Your task to perform on an android device: turn off data saver in the chrome app Image 0: 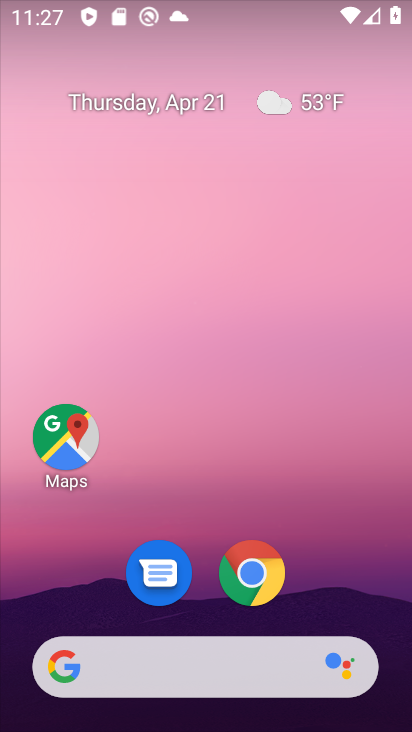
Step 0: drag from (156, 650) to (282, 147)
Your task to perform on an android device: turn off data saver in the chrome app Image 1: 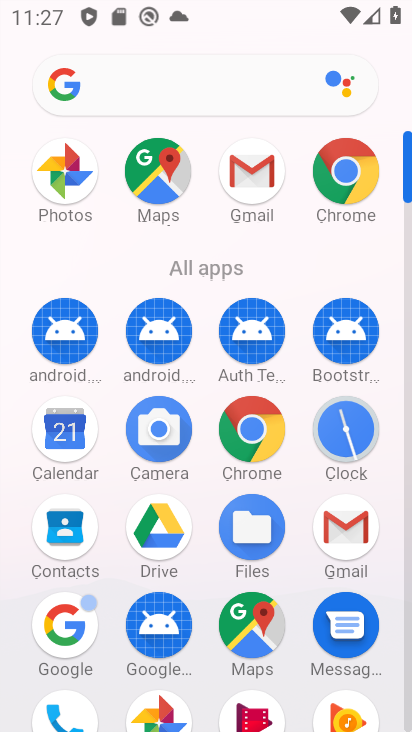
Step 1: click (353, 177)
Your task to perform on an android device: turn off data saver in the chrome app Image 2: 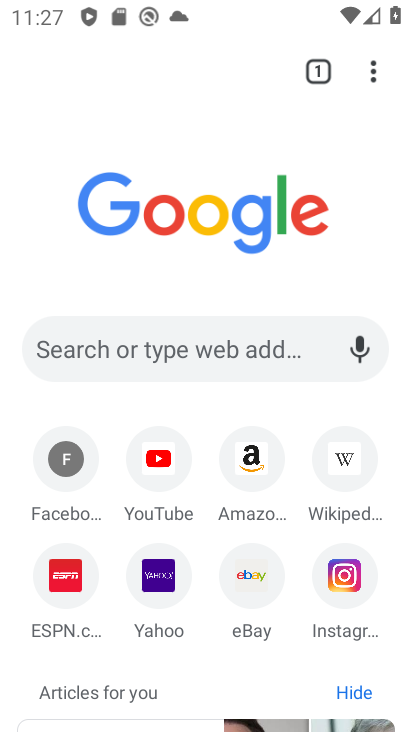
Step 2: click (364, 81)
Your task to perform on an android device: turn off data saver in the chrome app Image 3: 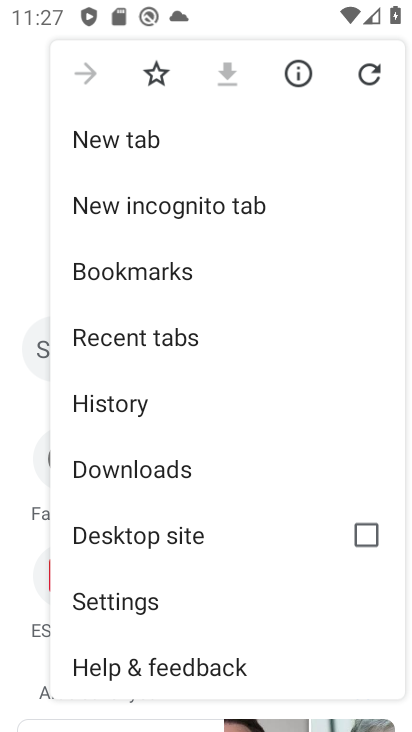
Step 3: click (143, 600)
Your task to perform on an android device: turn off data saver in the chrome app Image 4: 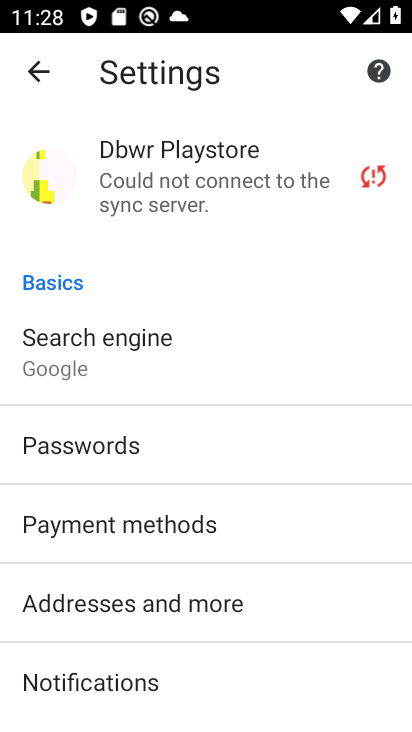
Step 4: drag from (183, 629) to (280, 280)
Your task to perform on an android device: turn off data saver in the chrome app Image 5: 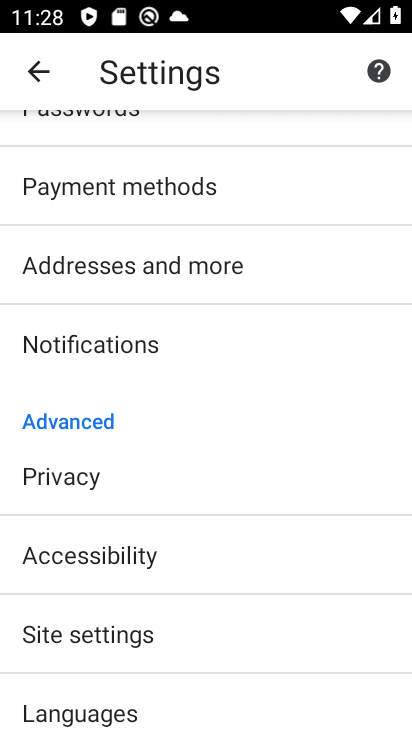
Step 5: drag from (149, 646) to (291, 329)
Your task to perform on an android device: turn off data saver in the chrome app Image 6: 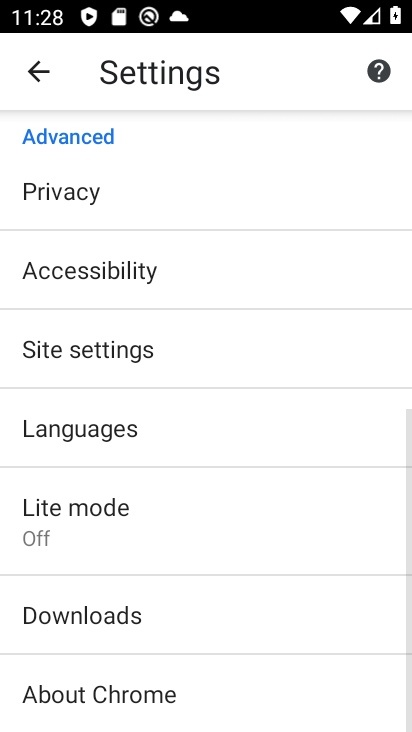
Step 6: click (84, 518)
Your task to perform on an android device: turn off data saver in the chrome app Image 7: 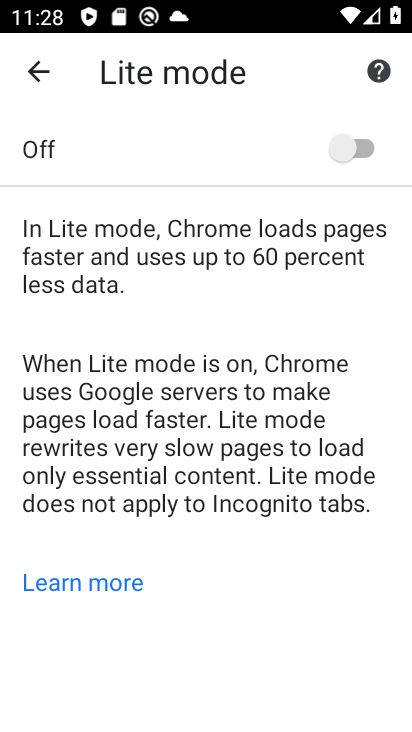
Step 7: task complete